Your task to perform on an android device: clear all cookies in the chrome app Image 0: 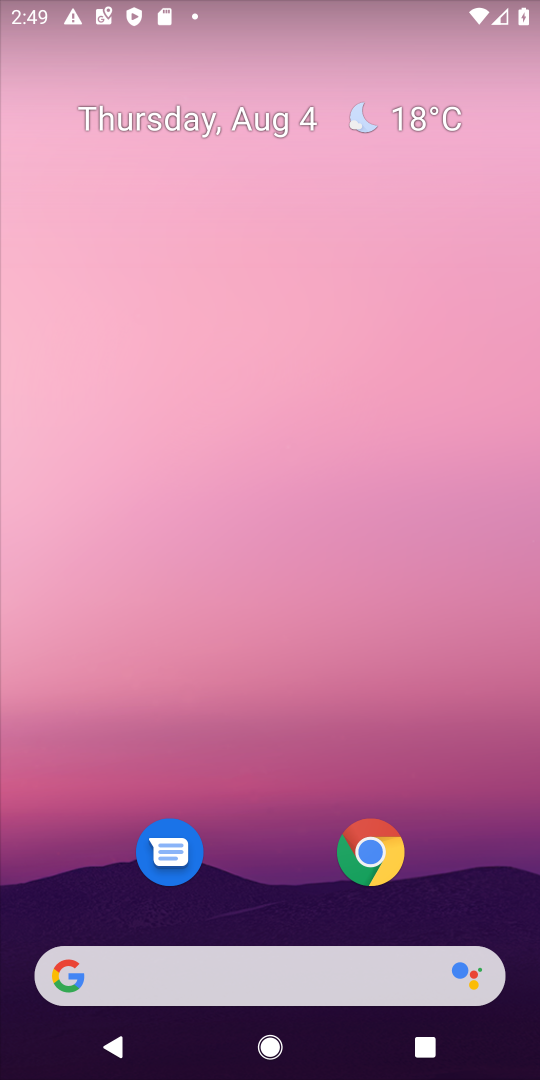
Step 0: click (362, 855)
Your task to perform on an android device: clear all cookies in the chrome app Image 1: 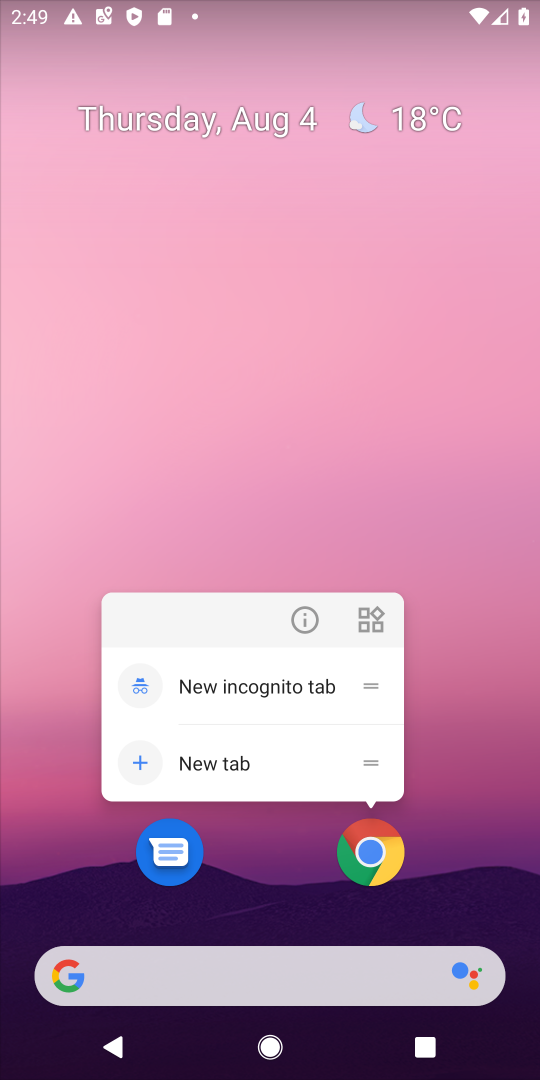
Step 1: click (370, 851)
Your task to perform on an android device: clear all cookies in the chrome app Image 2: 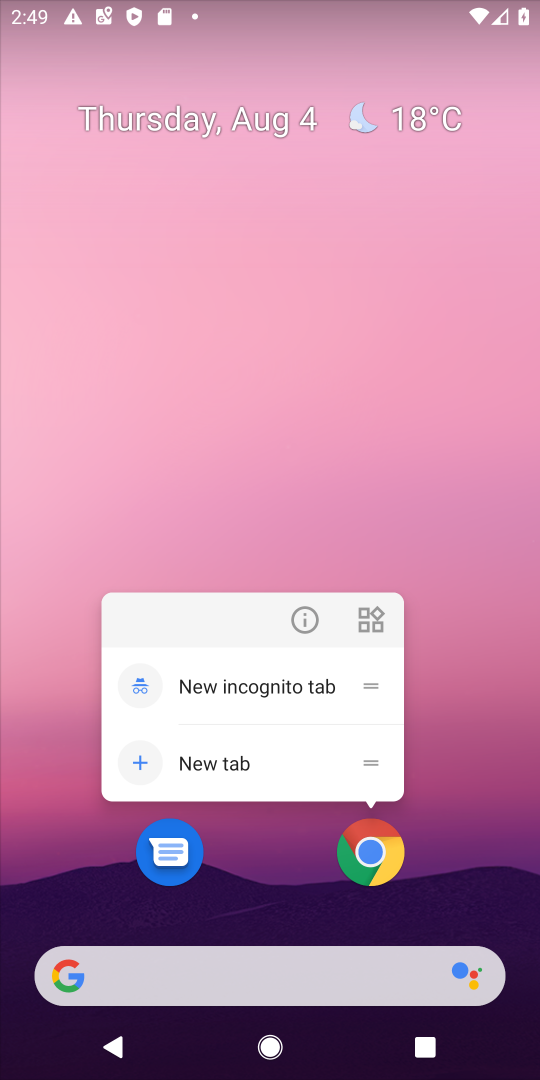
Step 2: click (389, 850)
Your task to perform on an android device: clear all cookies in the chrome app Image 3: 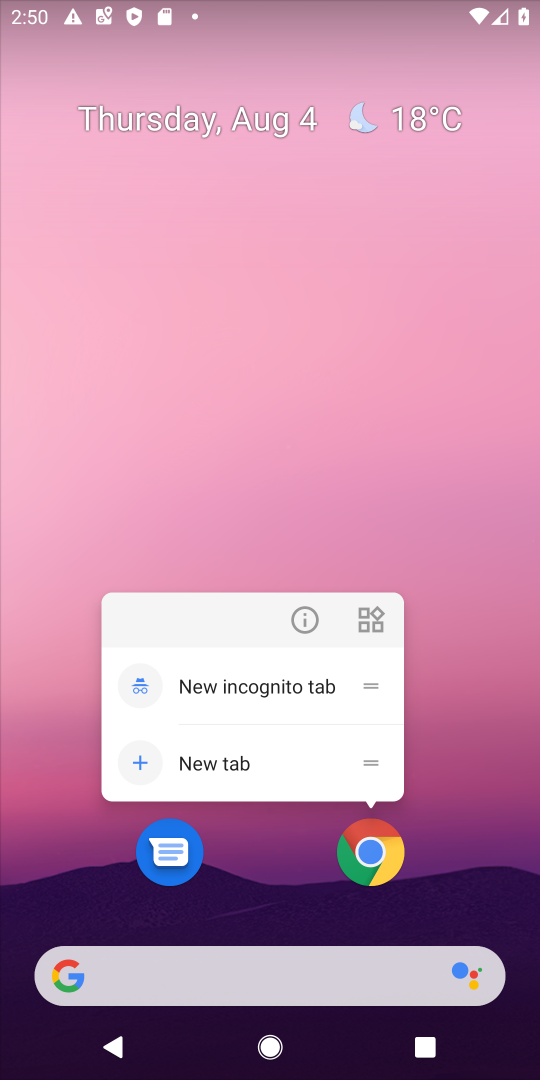
Step 3: click (357, 849)
Your task to perform on an android device: clear all cookies in the chrome app Image 4: 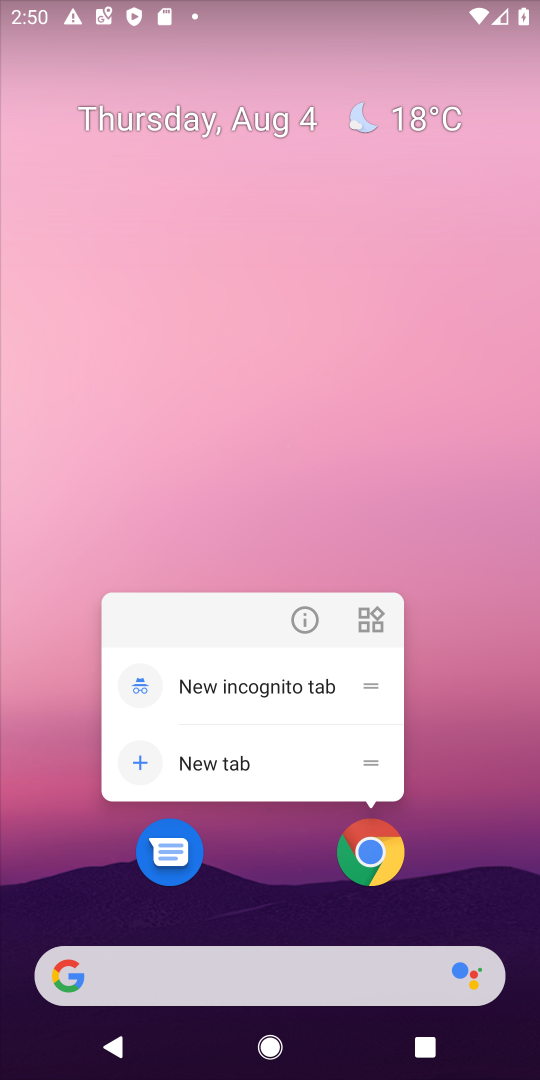
Step 4: click (386, 855)
Your task to perform on an android device: clear all cookies in the chrome app Image 5: 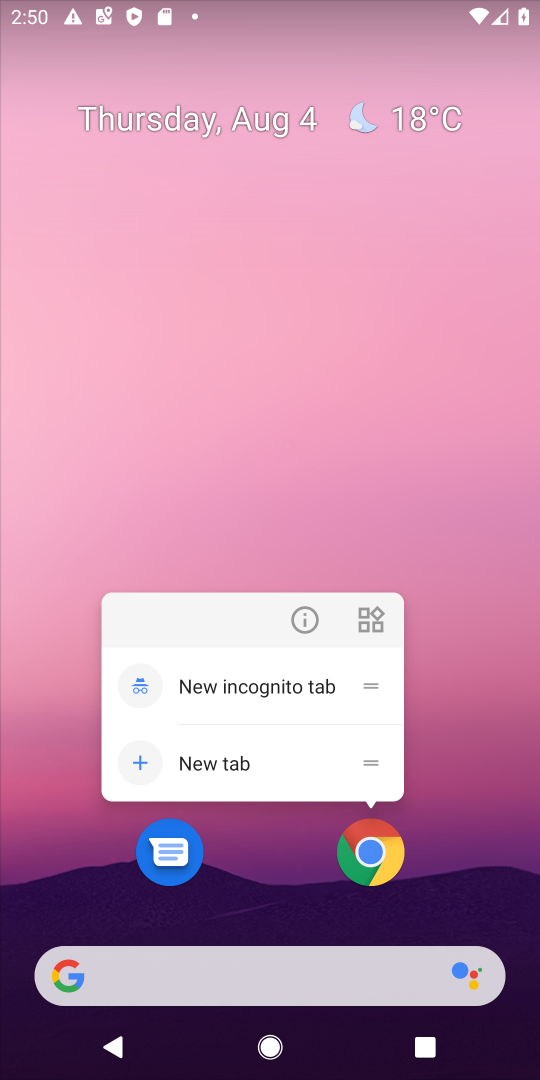
Step 5: click (365, 854)
Your task to perform on an android device: clear all cookies in the chrome app Image 6: 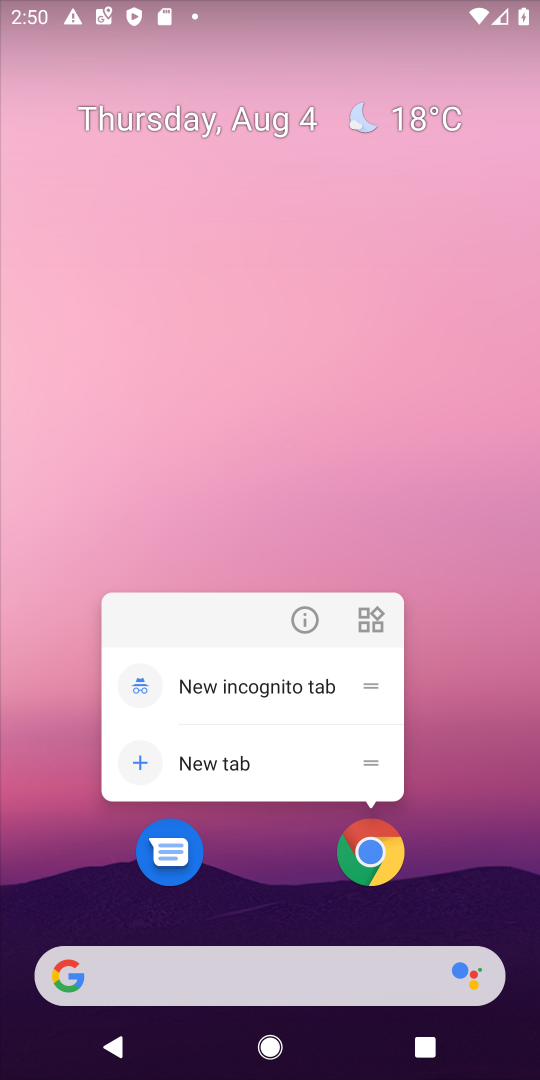
Step 6: click (388, 847)
Your task to perform on an android device: clear all cookies in the chrome app Image 7: 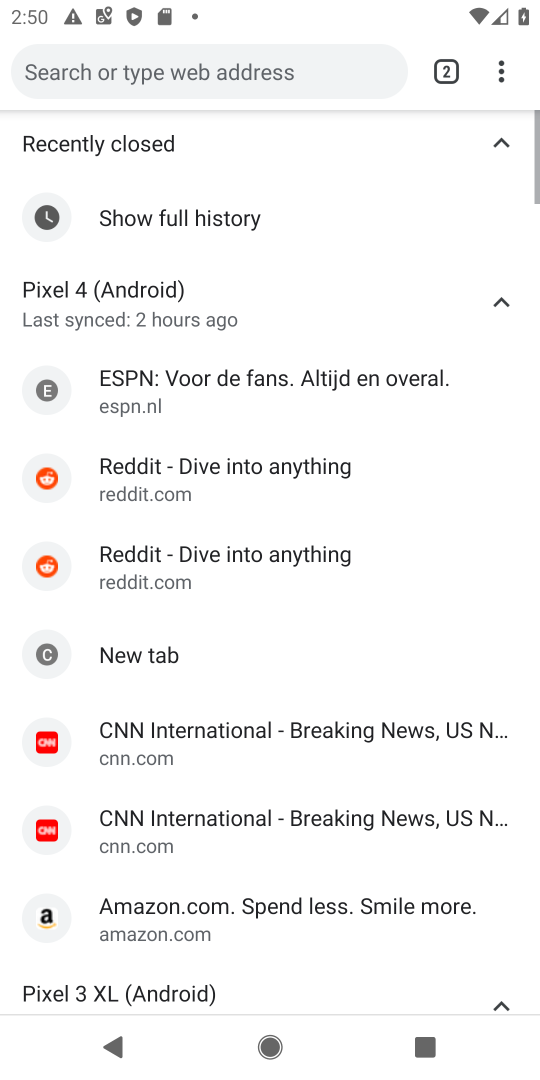
Step 7: drag from (504, 63) to (243, 489)
Your task to perform on an android device: clear all cookies in the chrome app Image 8: 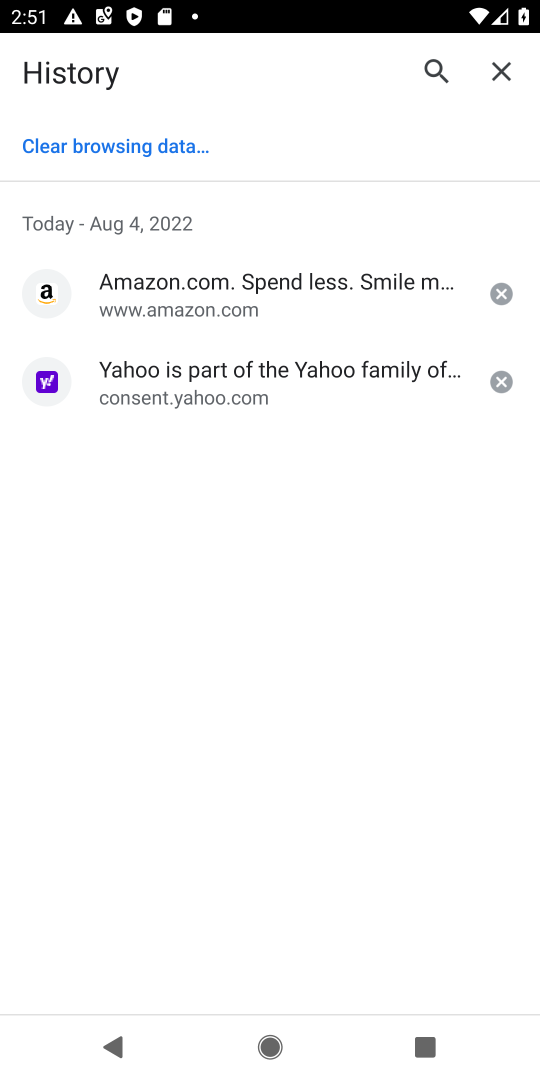
Step 8: click (115, 150)
Your task to perform on an android device: clear all cookies in the chrome app Image 9: 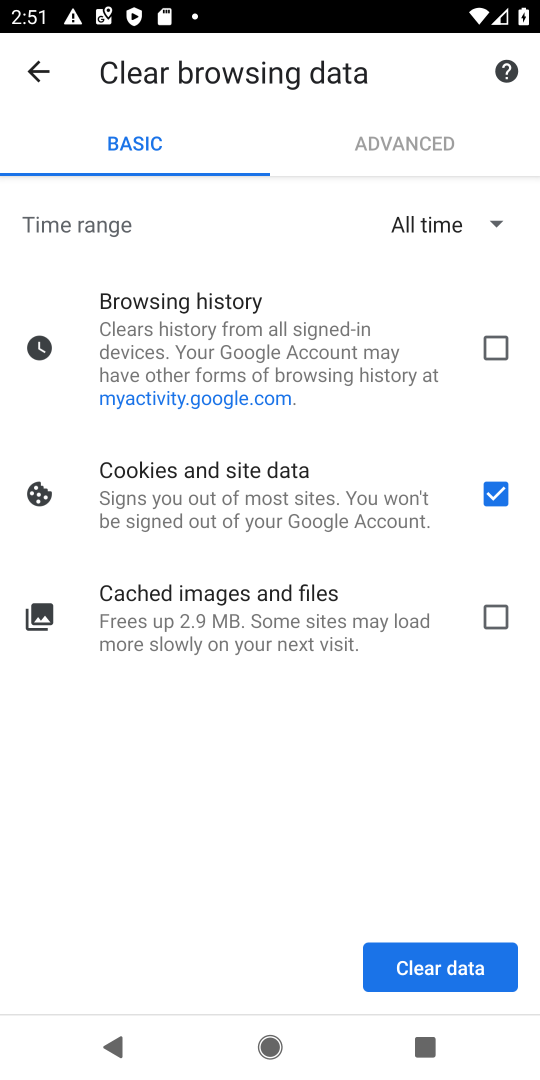
Step 9: click (490, 972)
Your task to perform on an android device: clear all cookies in the chrome app Image 10: 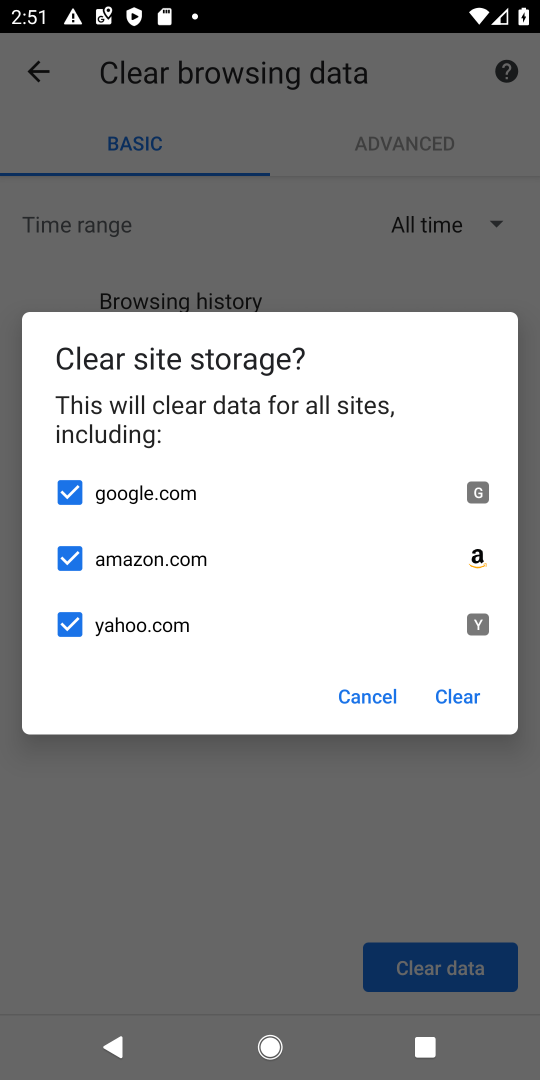
Step 10: click (455, 700)
Your task to perform on an android device: clear all cookies in the chrome app Image 11: 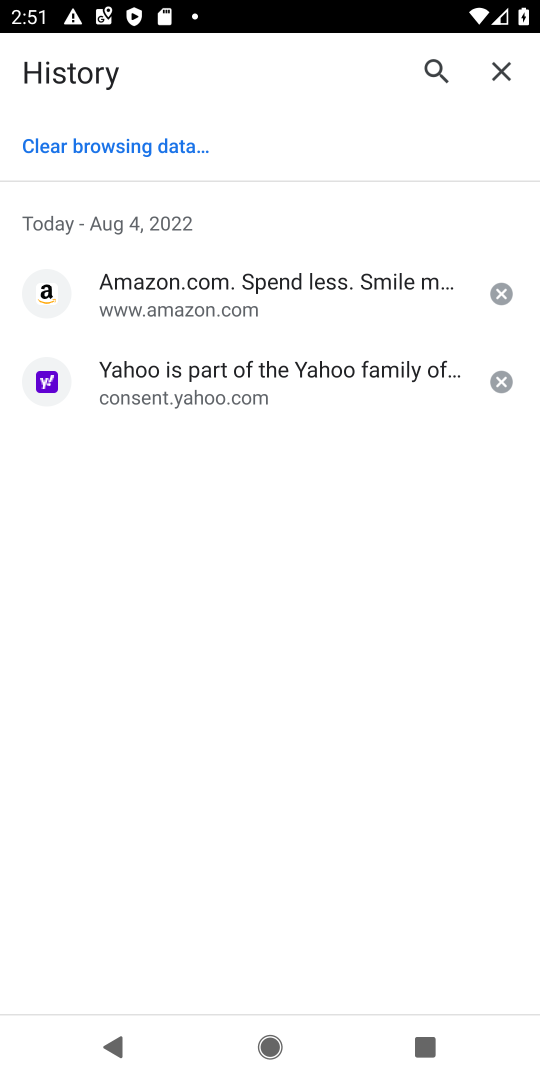
Step 11: task complete